Your task to perform on an android device: toggle translation in the chrome app Image 0: 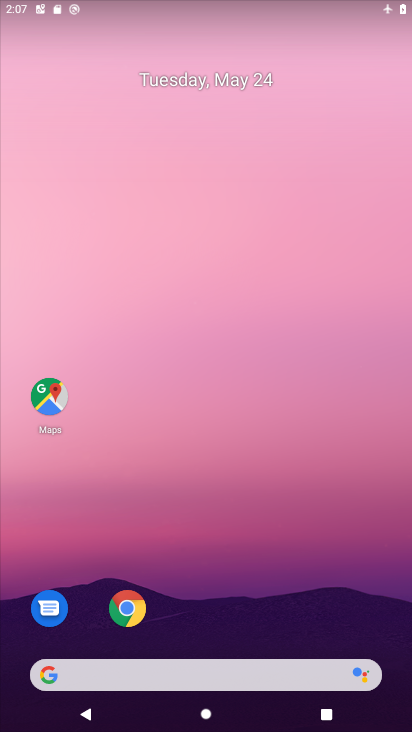
Step 0: drag from (333, 578) to (333, 544)
Your task to perform on an android device: toggle translation in the chrome app Image 1: 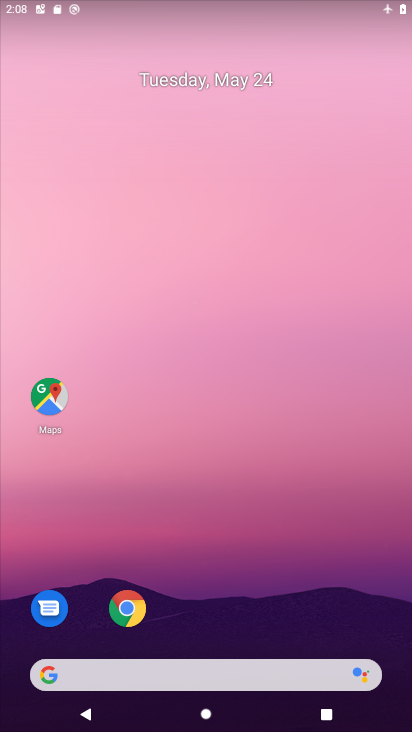
Step 1: click (133, 604)
Your task to perform on an android device: toggle translation in the chrome app Image 2: 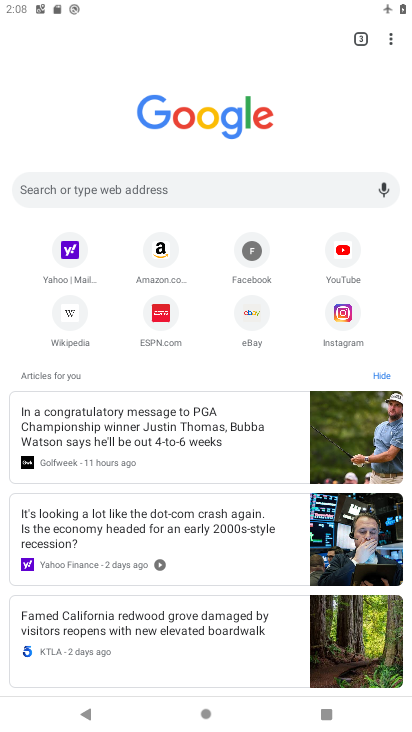
Step 2: click (394, 53)
Your task to perform on an android device: toggle translation in the chrome app Image 3: 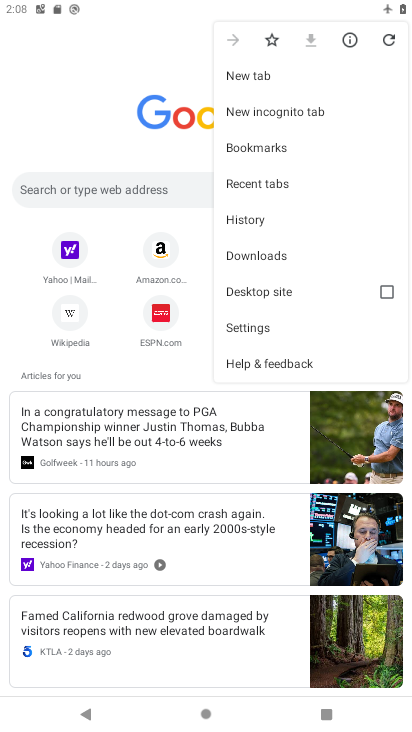
Step 3: click (259, 324)
Your task to perform on an android device: toggle translation in the chrome app Image 4: 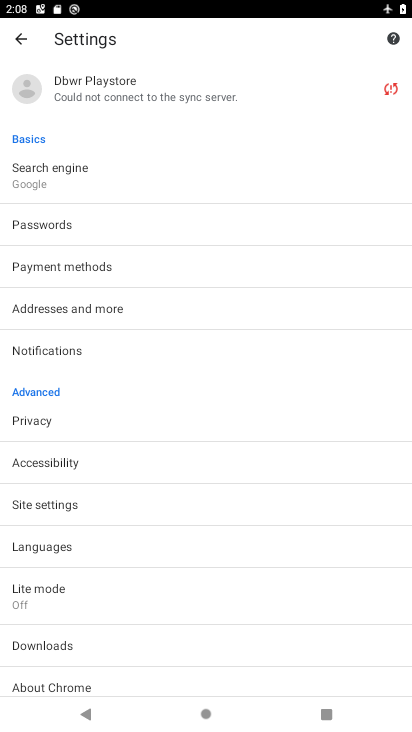
Step 4: click (130, 364)
Your task to perform on an android device: toggle translation in the chrome app Image 5: 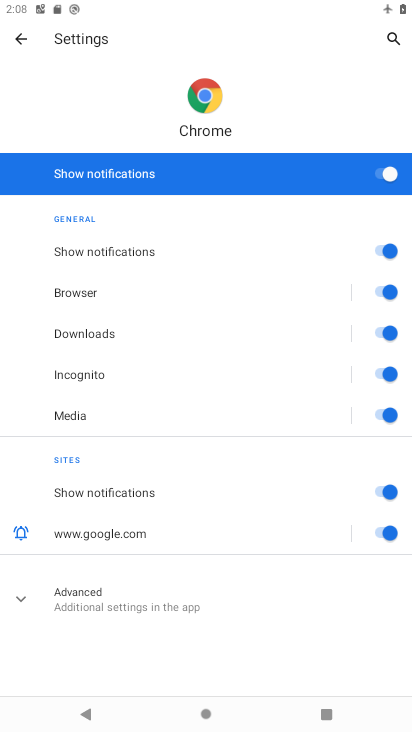
Step 5: click (348, 175)
Your task to perform on an android device: toggle translation in the chrome app Image 6: 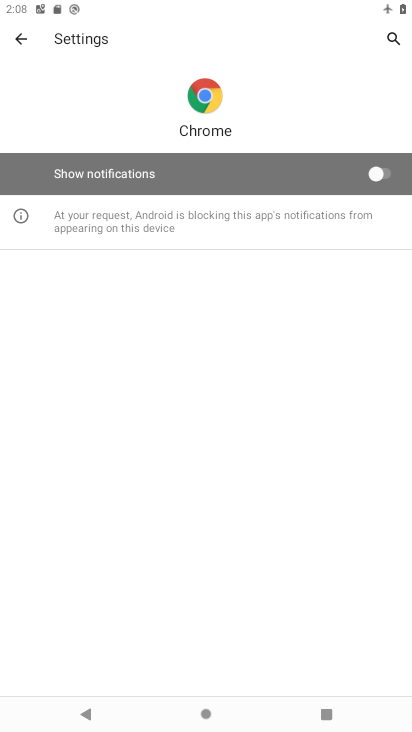
Step 6: task complete